Your task to perform on an android device: change notification settings in the gmail app Image 0: 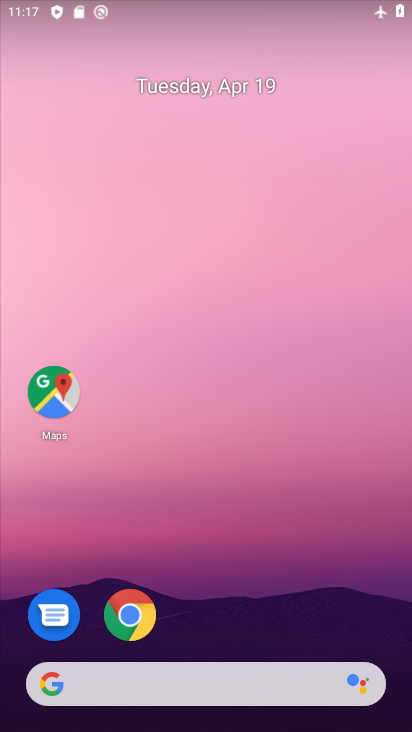
Step 0: drag from (254, 614) to (255, 157)
Your task to perform on an android device: change notification settings in the gmail app Image 1: 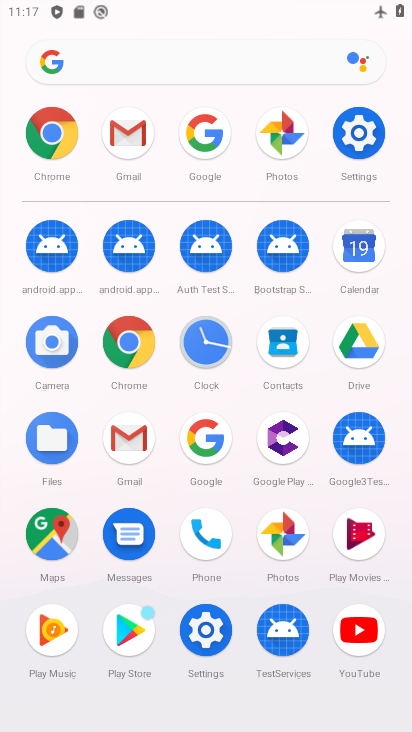
Step 1: click (139, 129)
Your task to perform on an android device: change notification settings in the gmail app Image 2: 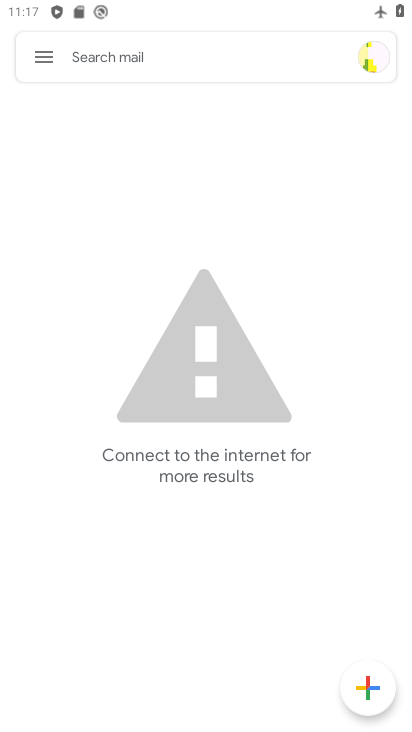
Step 2: click (49, 64)
Your task to perform on an android device: change notification settings in the gmail app Image 3: 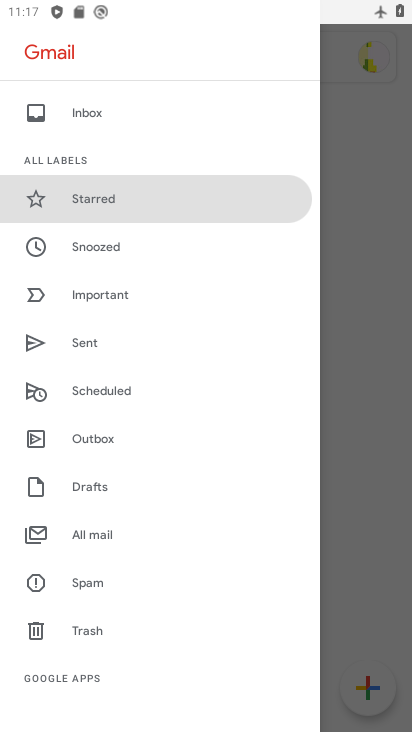
Step 3: drag from (173, 613) to (178, 314)
Your task to perform on an android device: change notification settings in the gmail app Image 4: 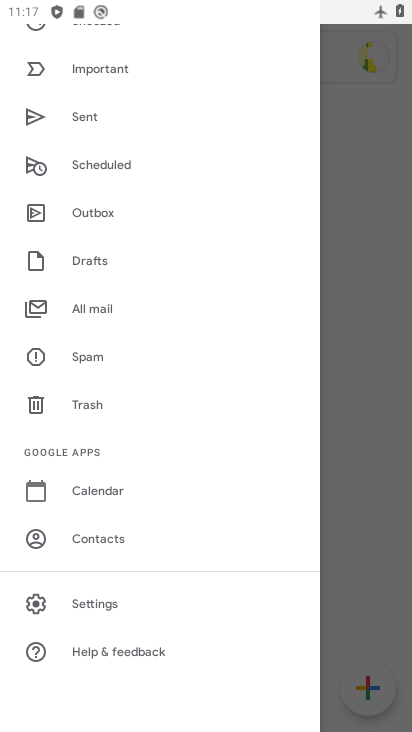
Step 4: click (98, 596)
Your task to perform on an android device: change notification settings in the gmail app Image 5: 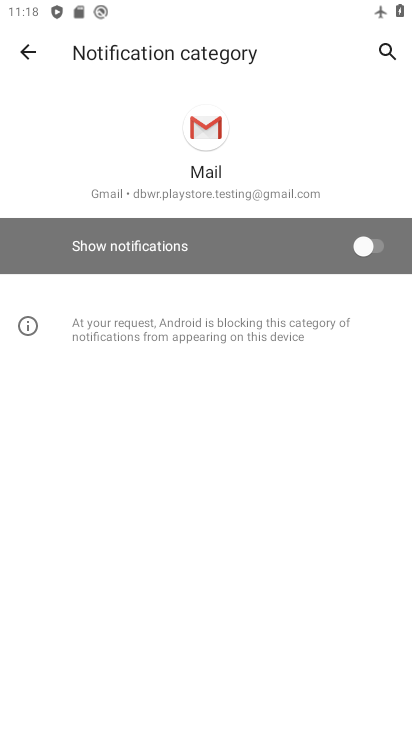
Step 5: click (387, 244)
Your task to perform on an android device: change notification settings in the gmail app Image 6: 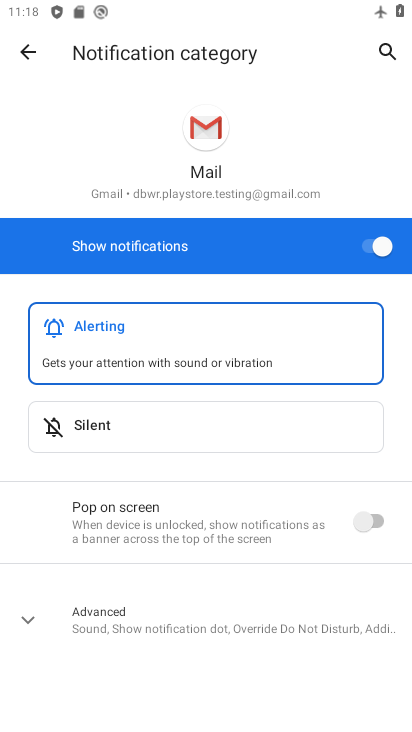
Step 6: task complete